Your task to perform on an android device: Open ESPN.com Image 0: 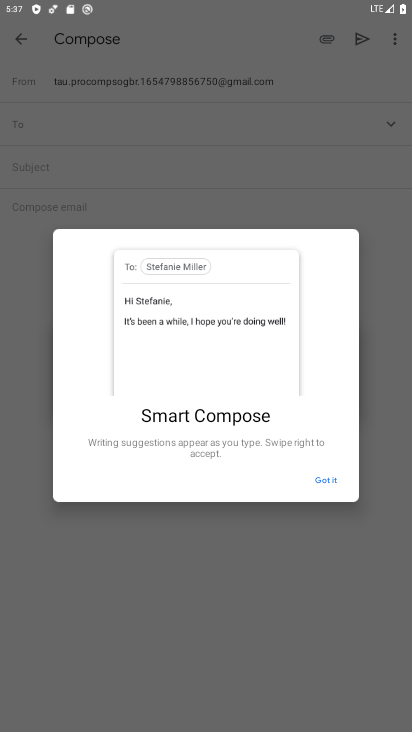
Step 0: press home button
Your task to perform on an android device: Open ESPN.com Image 1: 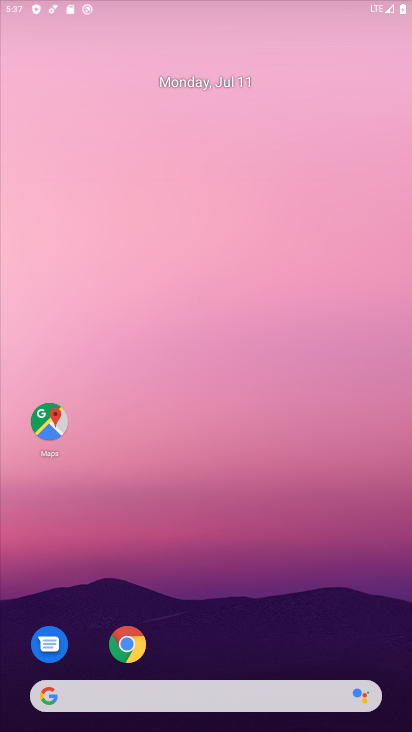
Step 1: drag from (248, 575) to (300, 8)
Your task to perform on an android device: Open ESPN.com Image 2: 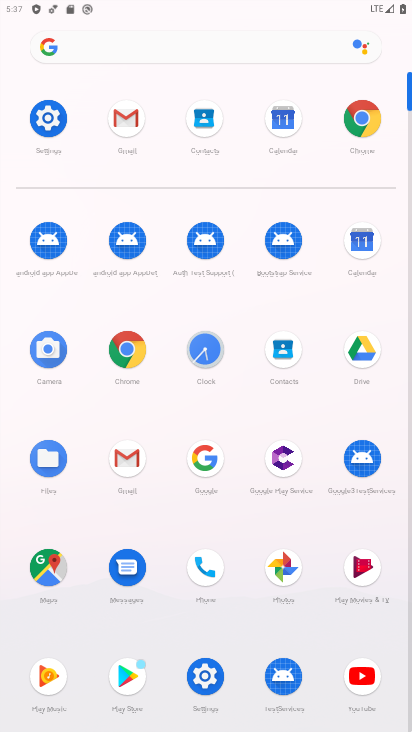
Step 2: click (133, 353)
Your task to perform on an android device: Open ESPN.com Image 3: 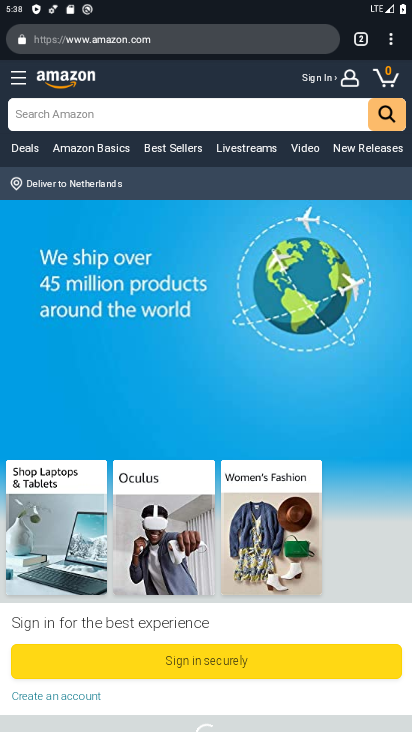
Step 3: drag from (392, 35) to (250, 81)
Your task to perform on an android device: Open ESPN.com Image 4: 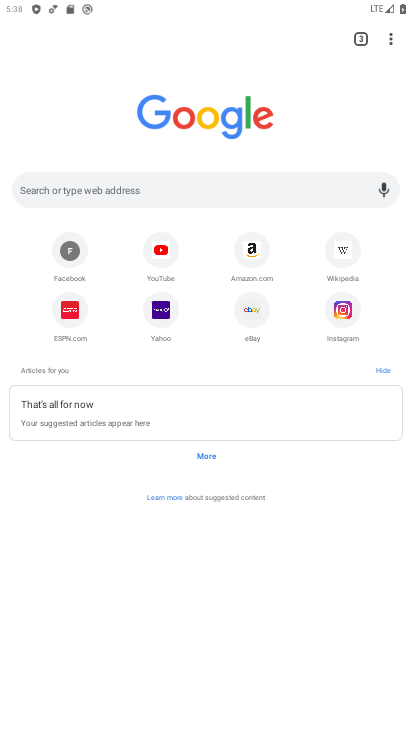
Step 4: click (78, 311)
Your task to perform on an android device: Open ESPN.com Image 5: 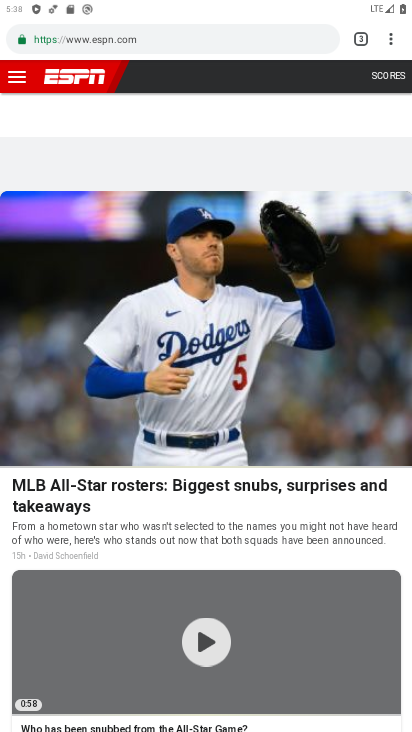
Step 5: task complete